Your task to perform on an android device: find snoozed emails in the gmail app Image 0: 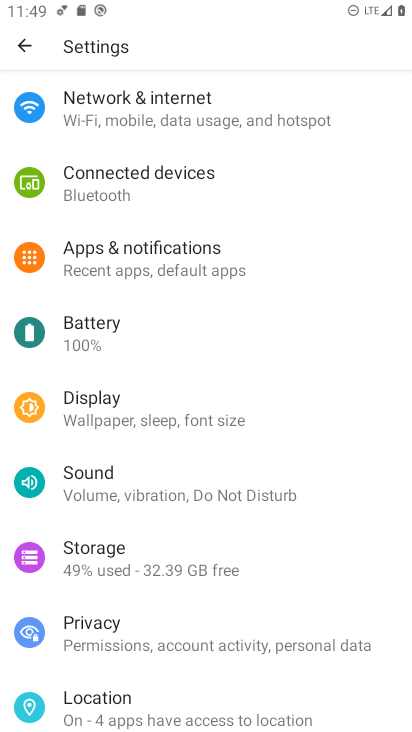
Step 0: press home button
Your task to perform on an android device: find snoozed emails in the gmail app Image 1: 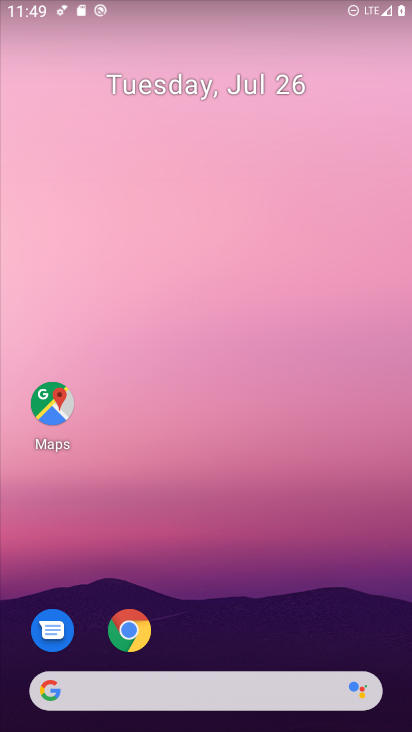
Step 1: drag from (364, 636) to (338, 136)
Your task to perform on an android device: find snoozed emails in the gmail app Image 2: 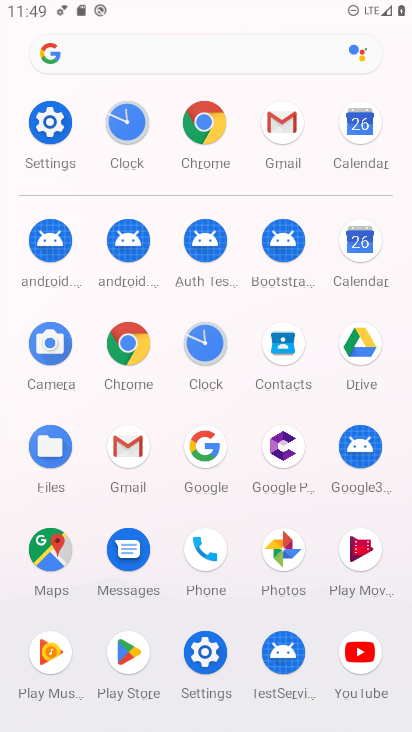
Step 2: click (127, 447)
Your task to perform on an android device: find snoozed emails in the gmail app Image 3: 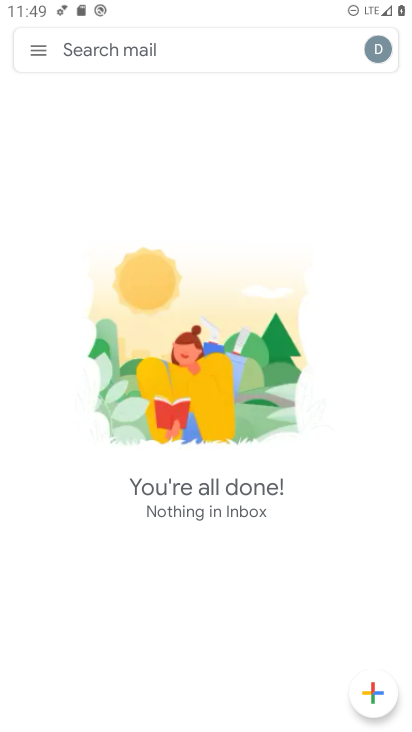
Step 3: click (36, 51)
Your task to perform on an android device: find snoozed emails in the gmail app Image 4: 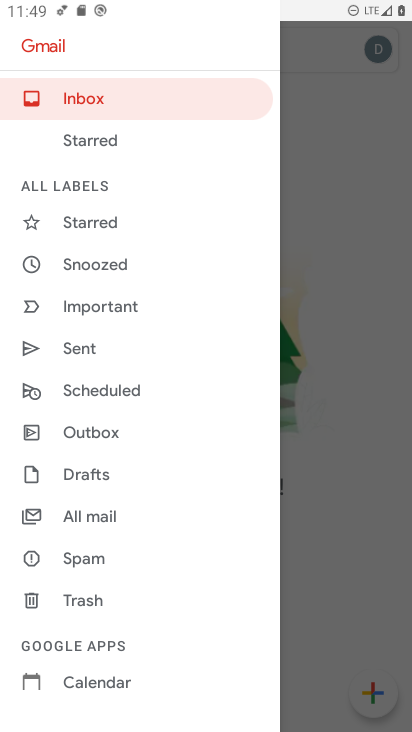
Step 4: click (94, 267)
Your task to perform on an android device: find snoozed emails in the gmail app Image 5: 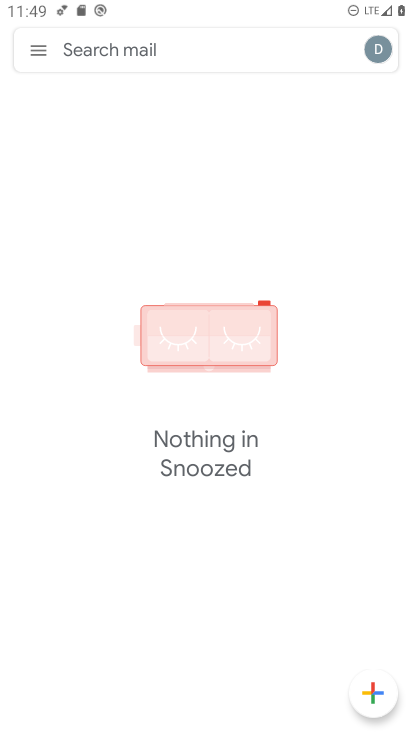
Step 5: task complete